Your task to perform on an android device: Clear all items from cart on costco. Search for razer deathadder on costco, select the first entry, add it to the cart, then select checkout. Image 0: 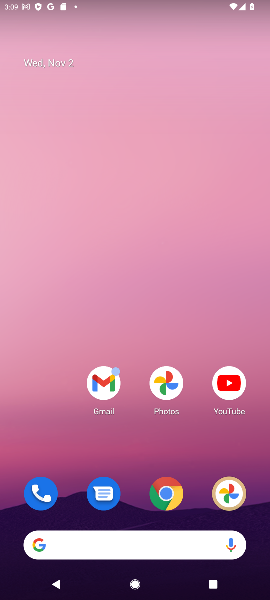
Step 0: drag from (141, 486) to (169, 236)
Your task to perform on an android device: Clear all items from cart on costco. Search for razer deathadder on costco, select the first entry, add it to the cart, then select checkout. Image 1: 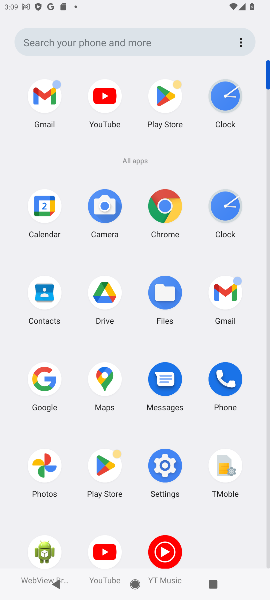
Step 1: click (50, 370)
Your task to perform on an android device: Clear all items from cart on costco. Search for razer deathadder on costco, select the first entry, add it to the cart, then select checkout. Image 2: 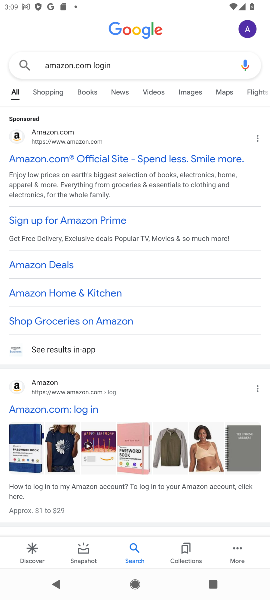
Step 2: click (113, 60)
Your task to perform on an android device: Clear all items from cart on costco. Search for razer deathadder on costco, select the first entry, add it to the cart, then select checkout. Image 3: 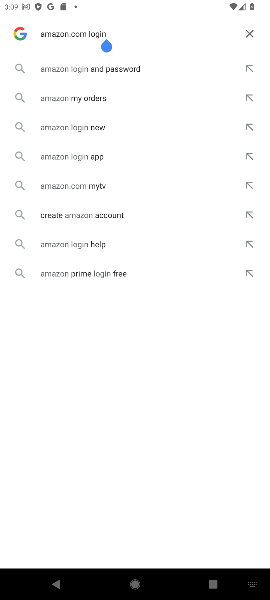
Step 3: click (248, 31)
Your task to perform on an android device: Clear all items from cart on costco. Search for razer deathadder on costco, select the first entry, add it to the cart, then select checkout. Image 4: 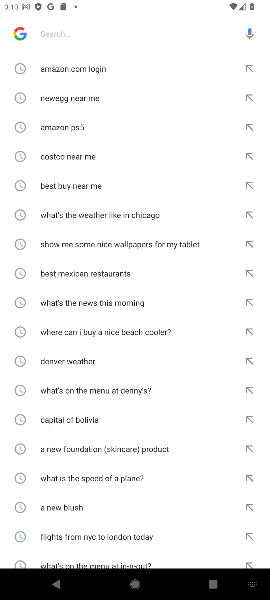
Step 4: click (66, 26)
Your task to perform on an android device: Clear all items from cart on costco. Search for razer deathadder on costco, select the first entry, add it to the cart, then select checkout. Image 5: 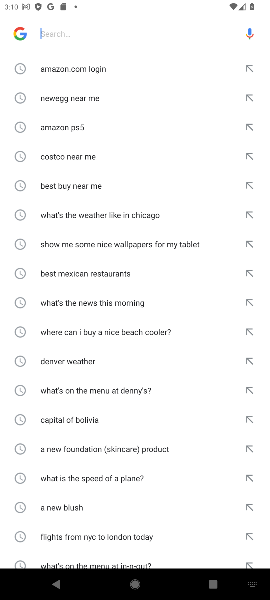
Step 5: type "costco "
Your task to perform on an android device: Clear all items from cart on costco. Search for razer deathadder on costco, select the first entry, add it to the cart, then select checkout. Image 6: 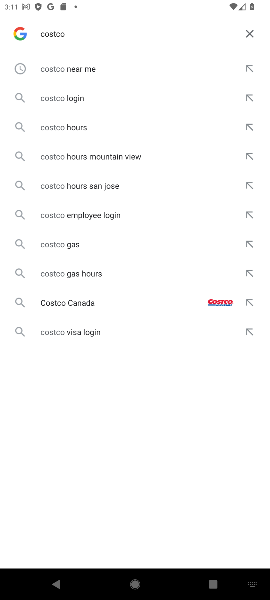
Step 6: click (57, 65)
Your task to perform on an android device: Clear all items from cart on costco. Search for razer deathadder on costco, select the first entry, add it to the cart, then select checkout. Image 7: 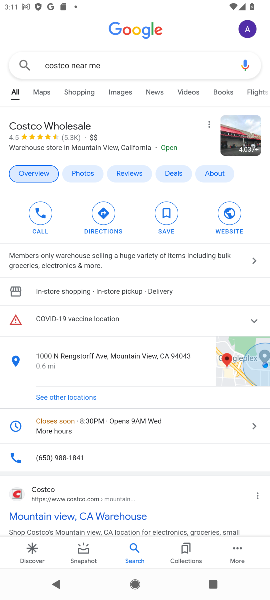
Step 7: click (17, 489)
Your task to perform on an android device: Clear all items from cart on costco. Search for razer deathadder on costco, select the first entry, add it to the cart, then select checkout. Image 8: 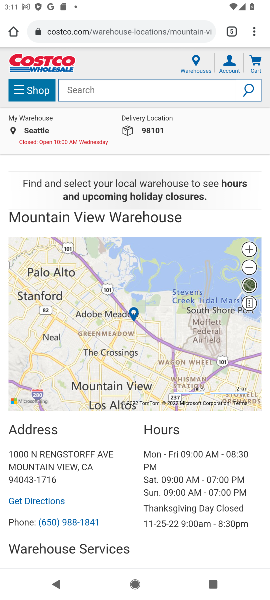
Step 8: click (161, 83)
Your task to perform on an android device: Clear all items from cart on costco. Search for razer deathadder on costco, select the first entry, add it to the cart, then select checkout. Image 9: 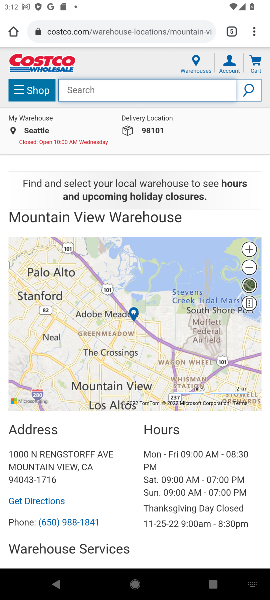
Step 9: click (119, 87)
Your task to perform on an android device: Clear all items from cart on costco. Search for razer deathadder on costco, select the first entry, add it to the cart, then select checkout. Image 10: 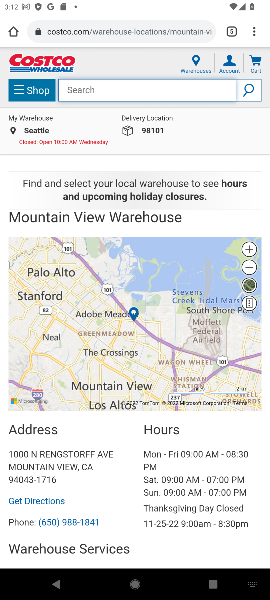
Step 10: type " razer deathadder "
Your task to perform on an android device: Clear all items from cart on costco. Search for razer deathadder on costco, select the first entry, add it to the cart, then select checkout. Image 11: 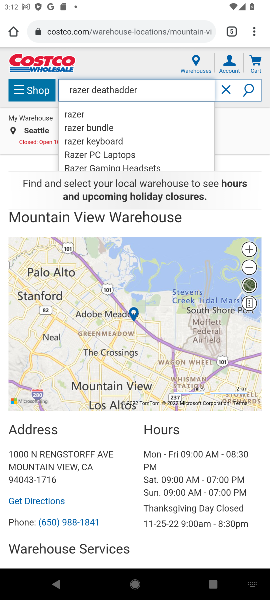
Step 11: click (73, 119)
Your task to perform on an android device: Clear all items from cart on costco. Search for razer deathadder on costco, select the first entry, add it to the cart, then select checkout. Image 12: 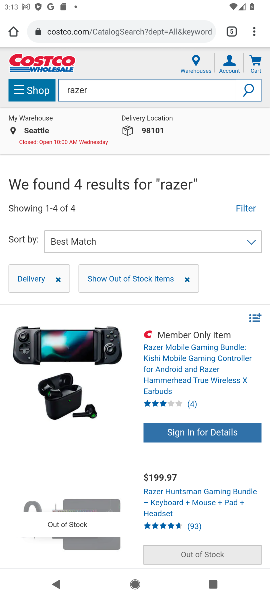
Step 12: click (110, 81)
Your task to perform on an android device: Clear all items from cart on costco. Search for razer deathadder on costco, select the first entry, add it to the cart, then select checkout. Image 13: 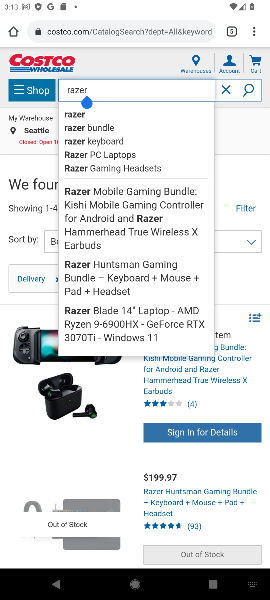
Step 13: click (228, 90)
Your task to perform on an android device: Clear all items from cart on costco. Search for razer deathadder on costco, select the first entry, add it to the cart, then select checkout. Image 14: 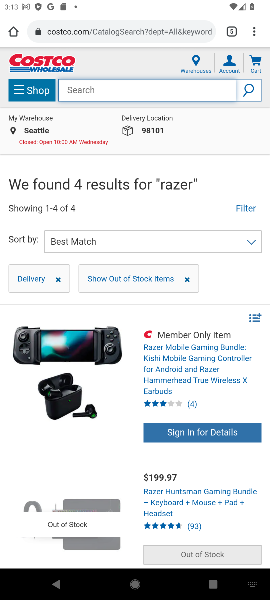
Step 14: click (138, 87)
Your task to perform on an android device: Clear all items from cart on costco. Search for razer deathadder on costco, select the first entry, add it to the cart, then select checkout. Image 15: 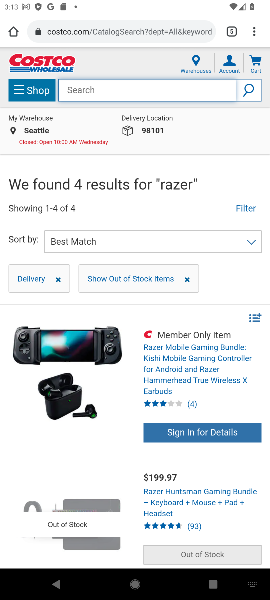
Step 15: type " razer deathadder "
Your task to perform on an android device: Clear all items from cart on costco. Search for razer deathadder on costco, select the first entry, add it to the cart, then select checkout. Image 16: 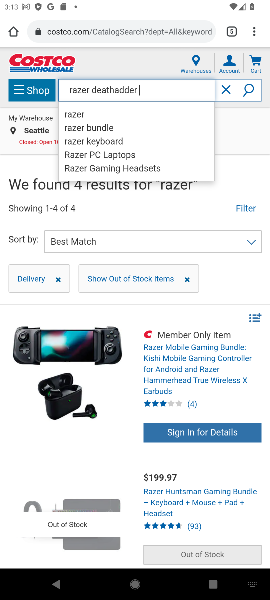
Step 16: click (83, 116)
Your task to perform on an android device: Clear all items from cart on costco. Search for razer deathadder on costco, select the first entry, add it to the cart, then select checkout. Image 17: 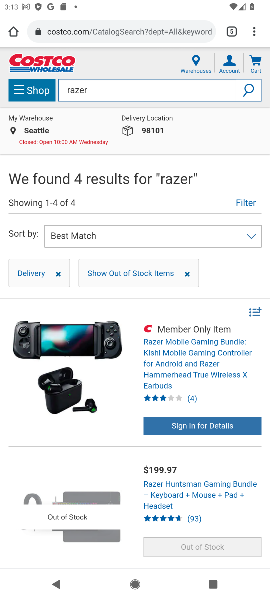
Step 17: task complete